Your task to perform on an android device: What's the news in the Dominican Republic? Image 0: 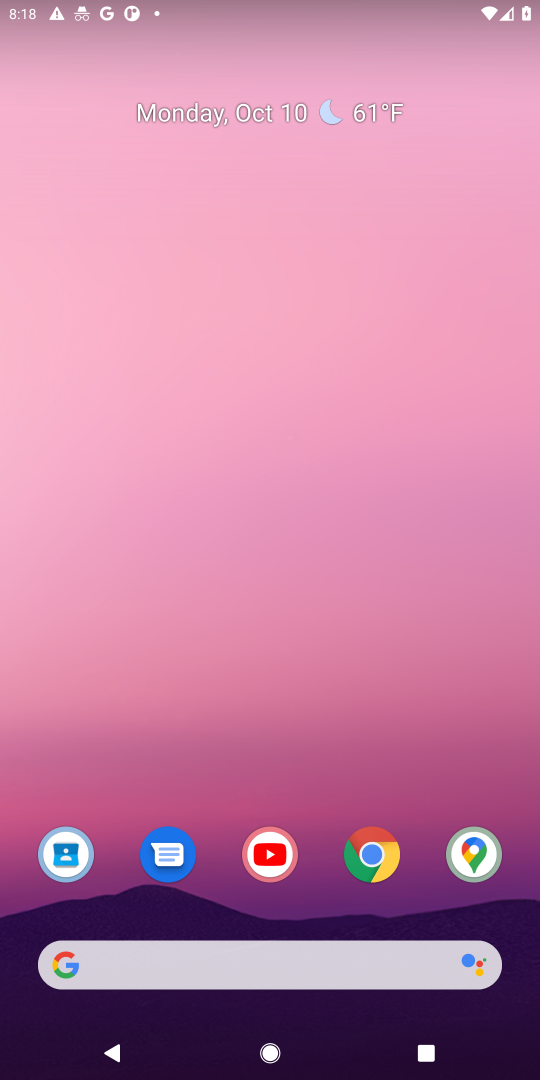
Step 0: click (377, 851)
Your task to perform on an android device: What's the news in the Dominican Republic? Image 1: 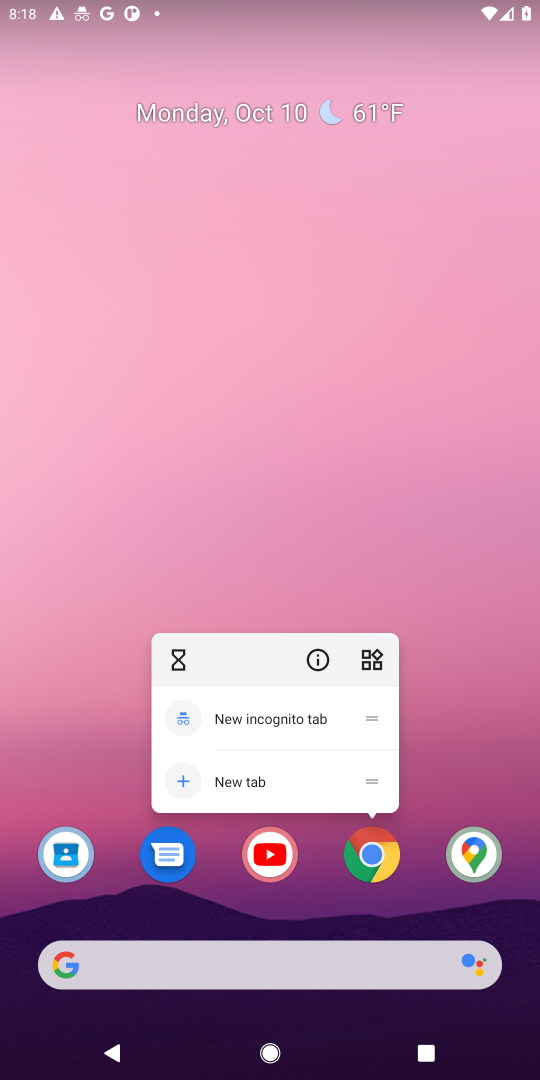
Step 1: click (376, 853)
Your task to perform on an android device: What's the news in the Dominican Republic? Image 2: 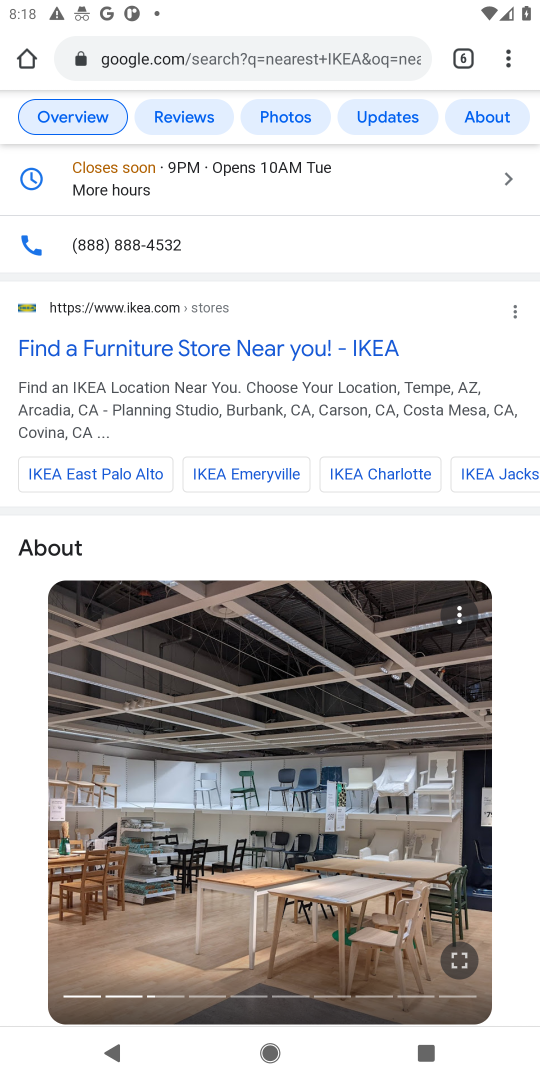
Step 2: click (345, 54)
Your task to perform on an android device: What's the news in the Dominican Republic? Image 3: 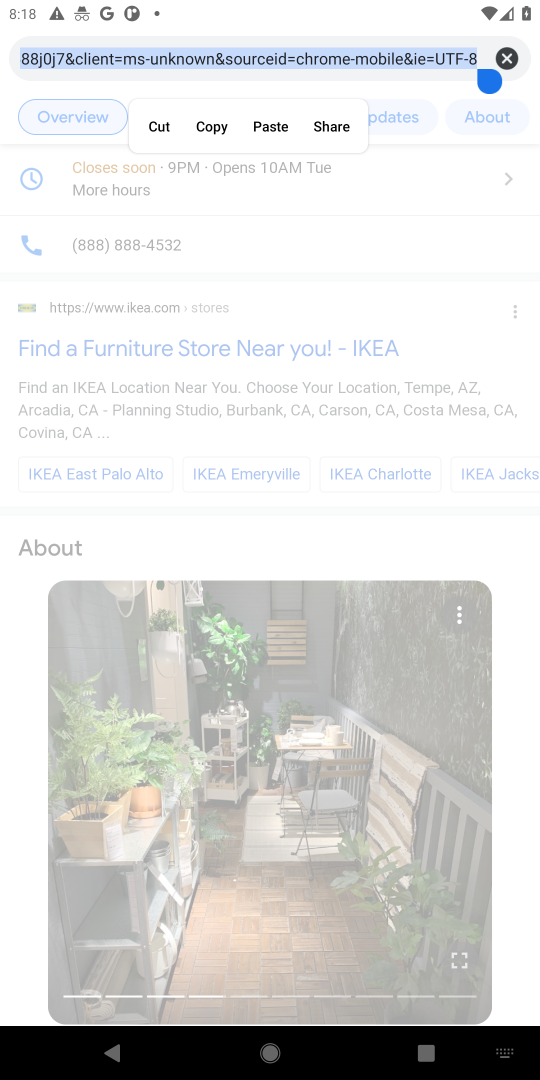
Step 3: click (507, 59)
Your task to perform on an android device: What's the news in the Dominican Republic? Image 4: 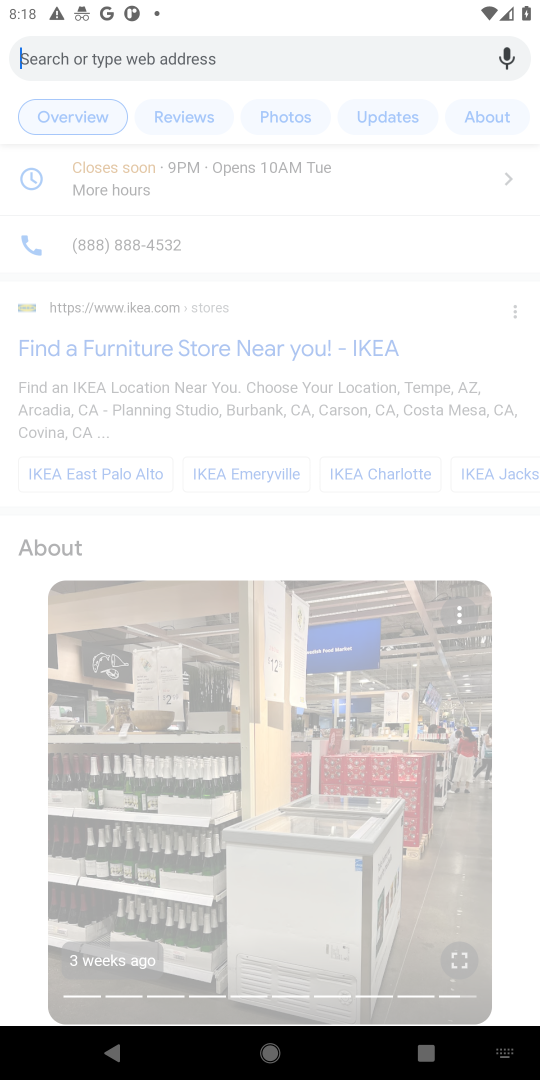
Step 4: type "news in the Dominican Republic"
Your task to perform on an android device: What's the news in the Dominican Republic? Image 5: 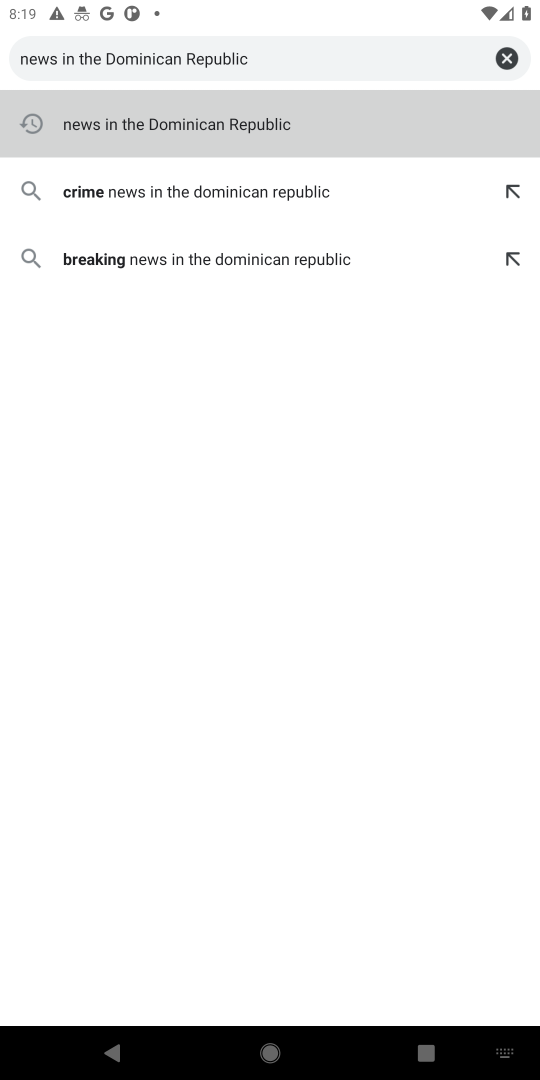
Step 5: click (168, 113)
Your task to perform on an android device: What's the news in the Dominican Republic? Image 6: 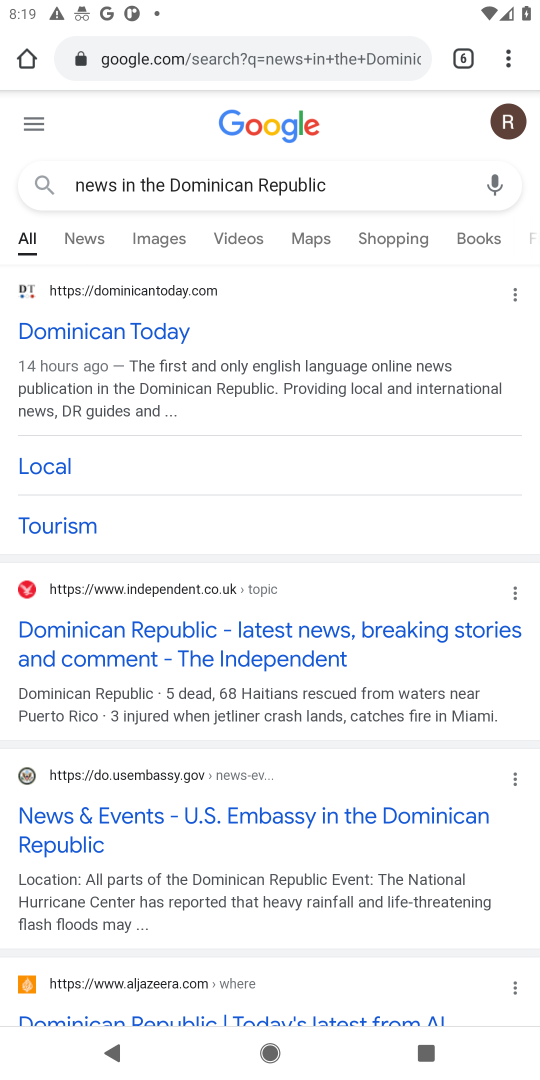
Step 6: click (90, 238)
Your task to perform on an android device: What's the news in the Dominican Republic? Image 7: 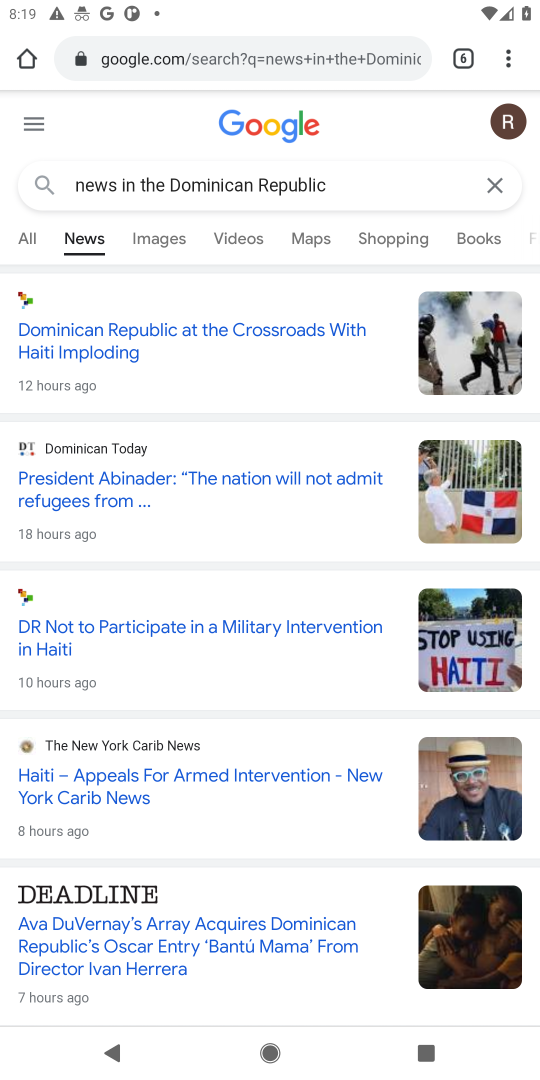
Step 7: task complete